Your task to perform on an android device: see sites visited before in the chrome app Image 0: 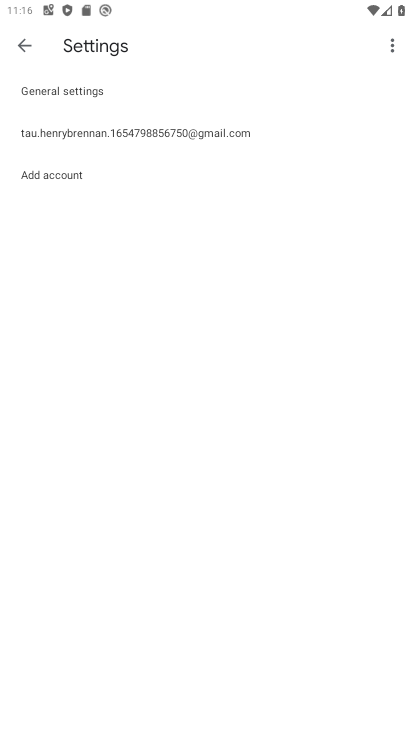
Step 0: press home button
Your task to perform on an android device: see sites visited before in the chrome app Image 1: 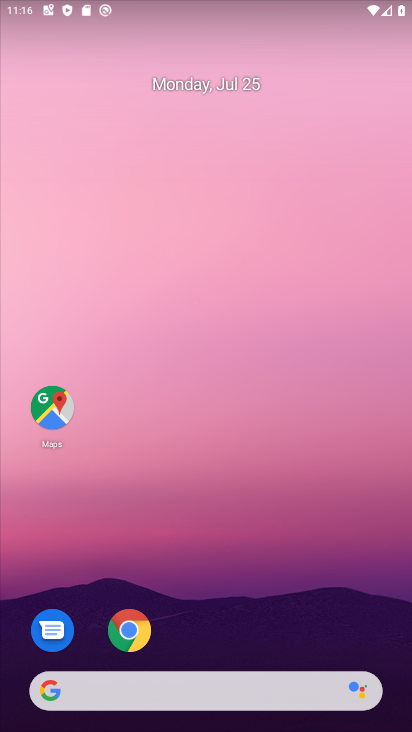
Step 1: click (128, 630)
Your task to perform on an android device: see sites visited before in the chrome app Image 2: 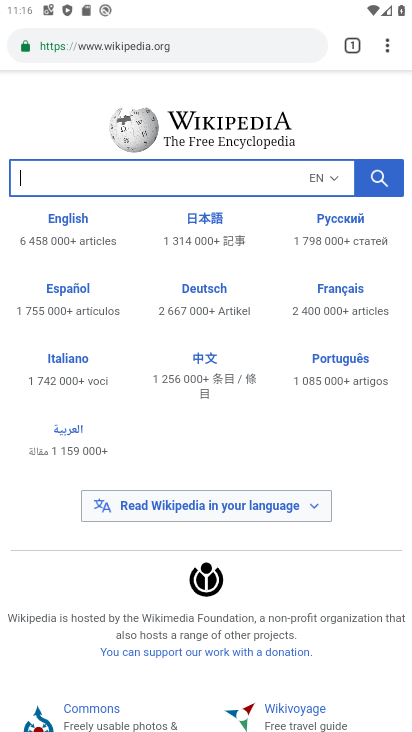
Step 2: click (387, 48)
Your task to perform on an android device: see sites visited before in the chrome app Image 3: 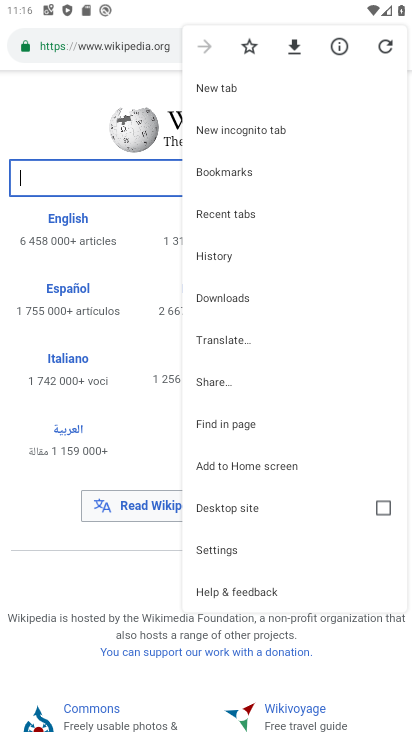
Step 3: click (218, 256)
Your task to perform on an android device: see sites visited before in the chrome app Image 4: 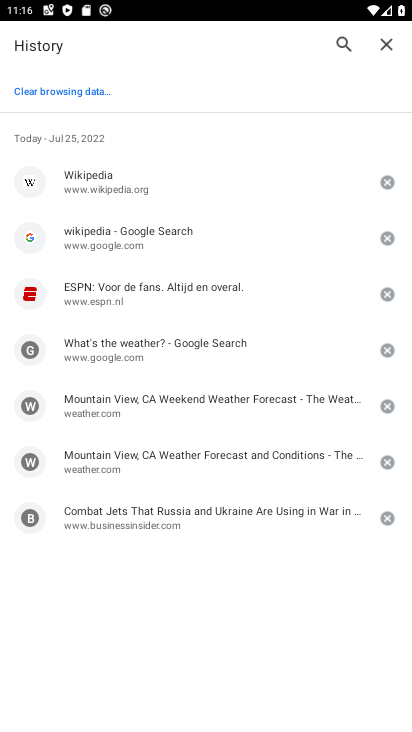
Step 4: task complete